Your task to perform on an android device: set an alarm Image 0: 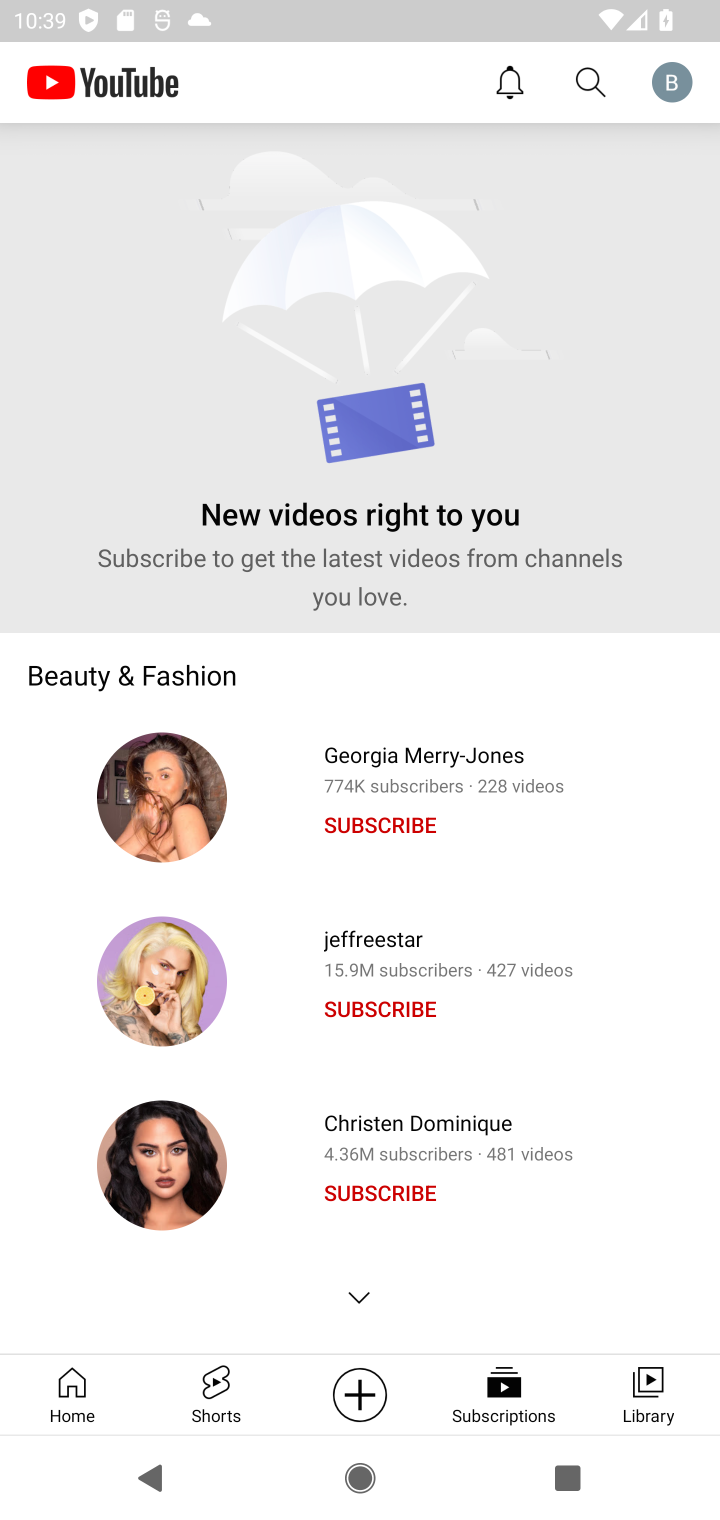
Step 0: press home button
Your task to perform on an android device: set an alarm Image 1: 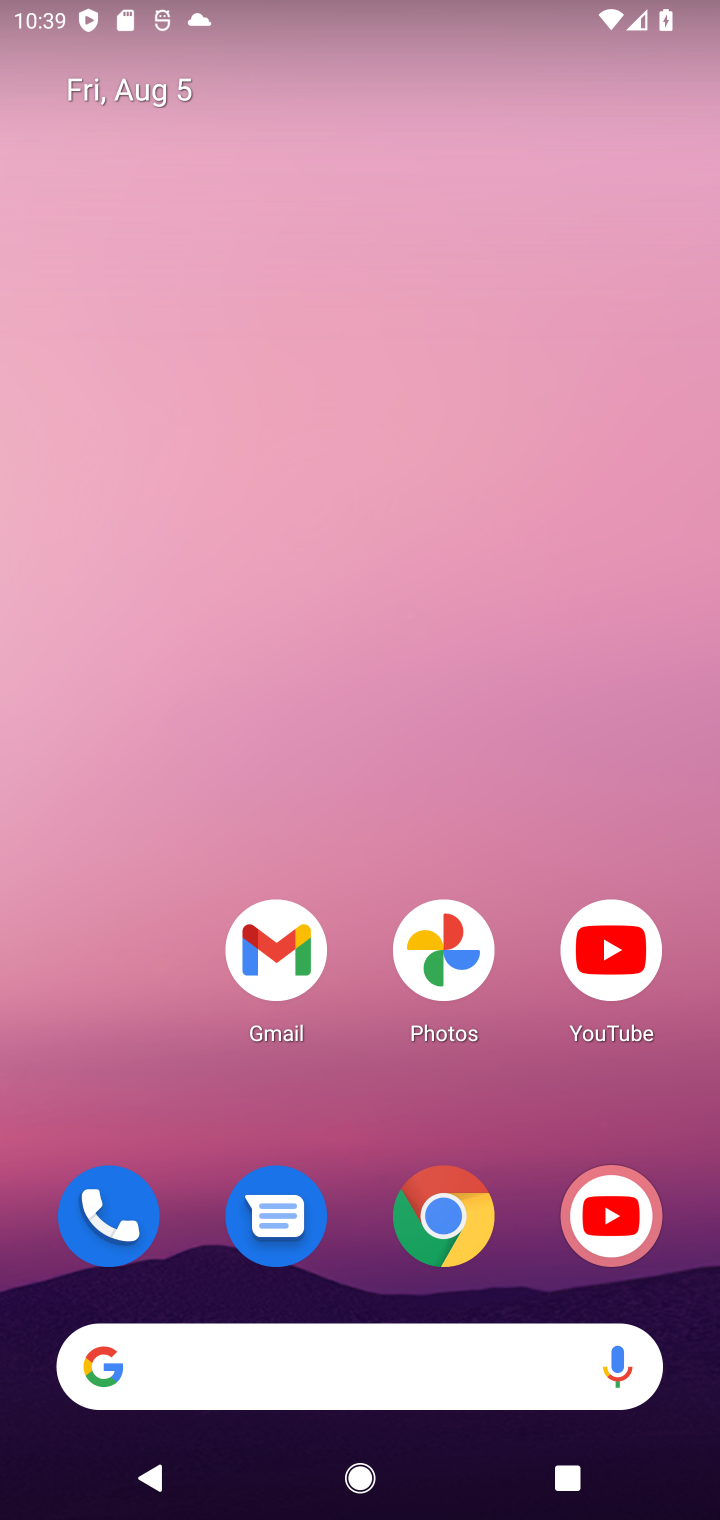
Step 1: drag from (438, 1362) to (619, 499)
Your task to perform on an android device: set an alarm Image 2: 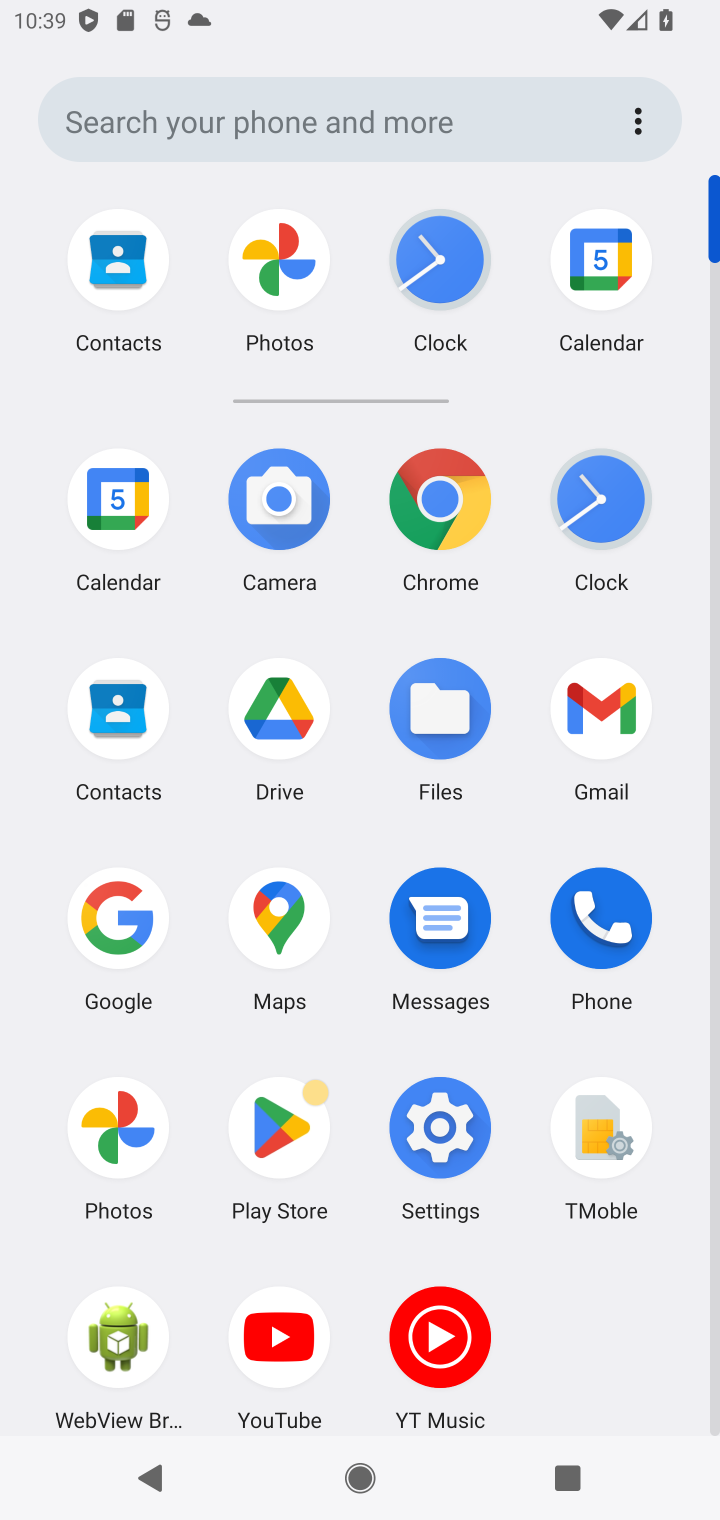
Step 2: click (619, 499)
Your task to perform on an android device: set an alarm Image 3: 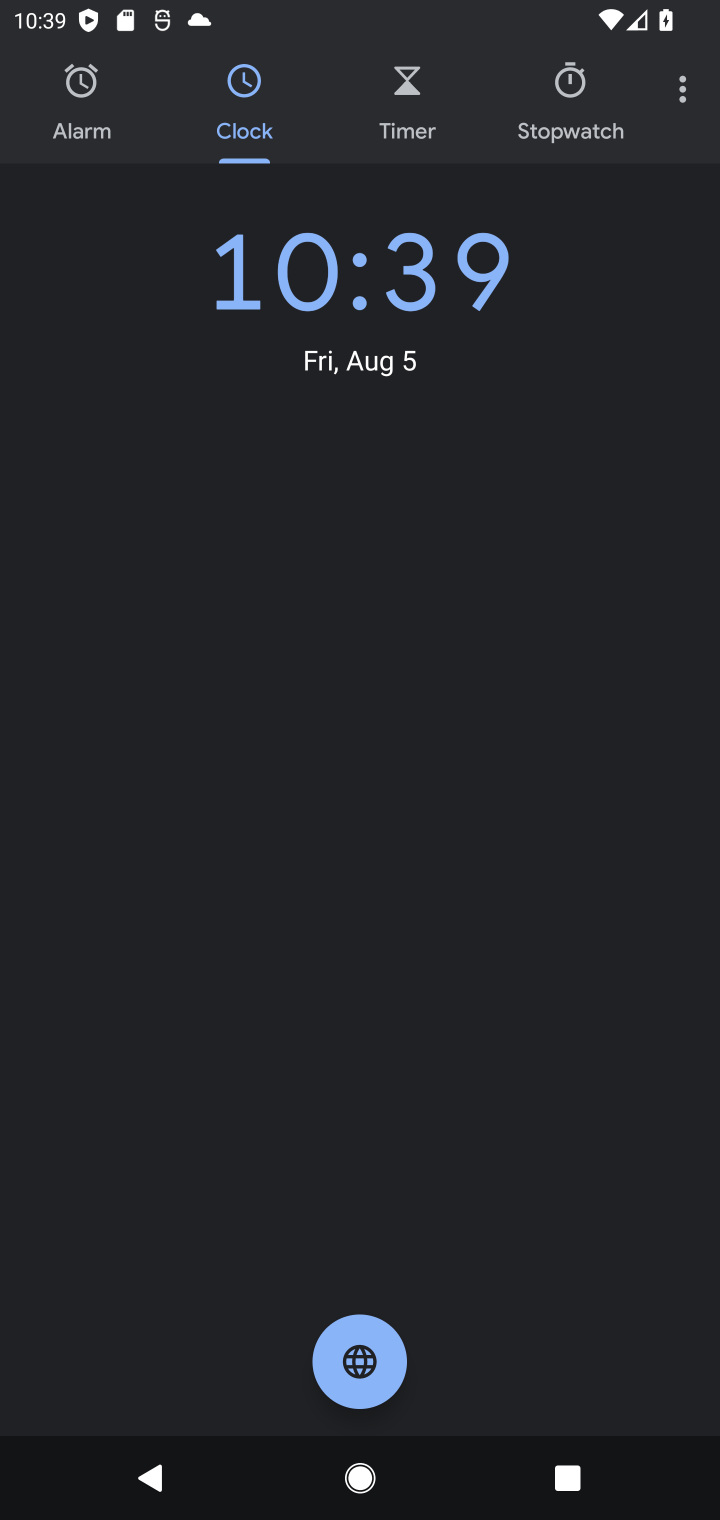
Step 3: click (82, 117)
Your task to perform on an android device: set an alarm Image 4: 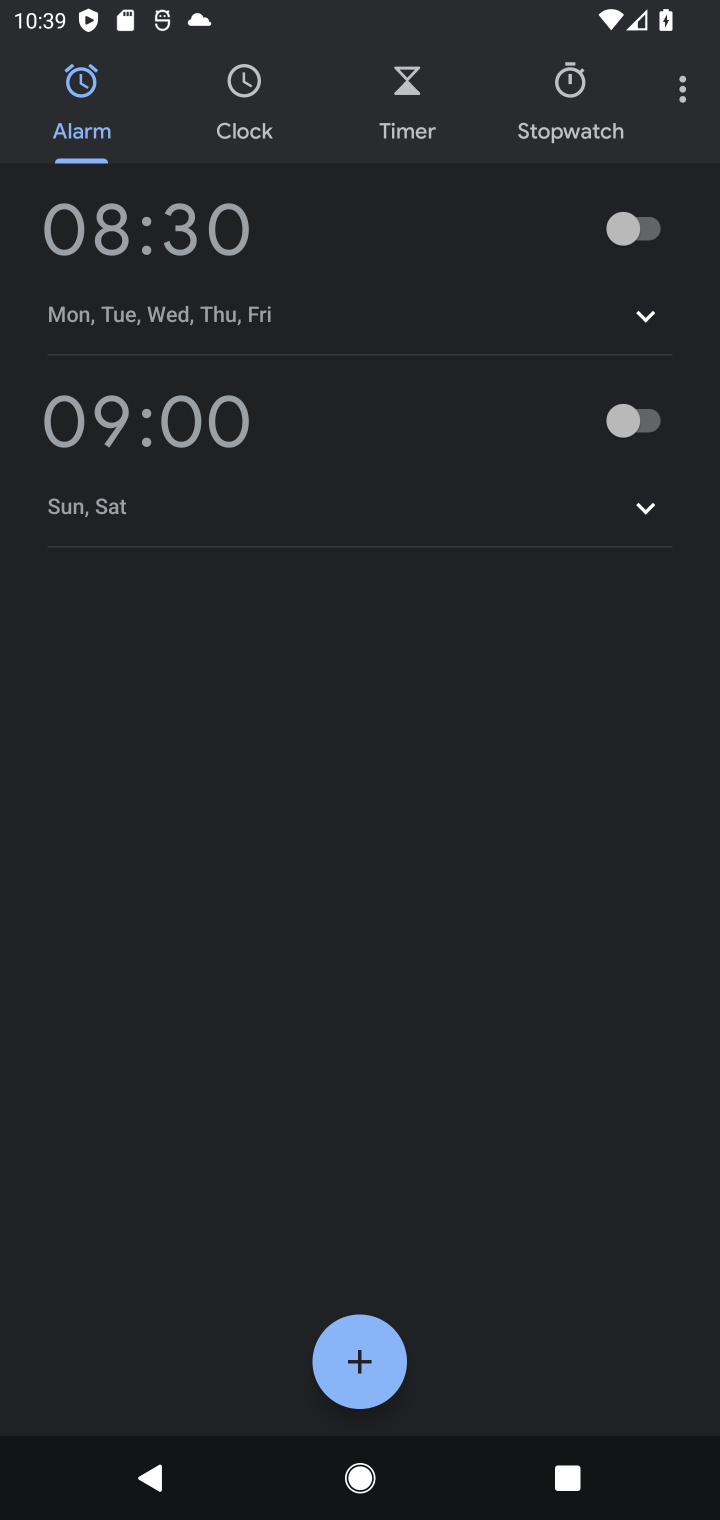
Step 4: click (644, 230)
Your task to perform on an android device: set an alarm Image 5: 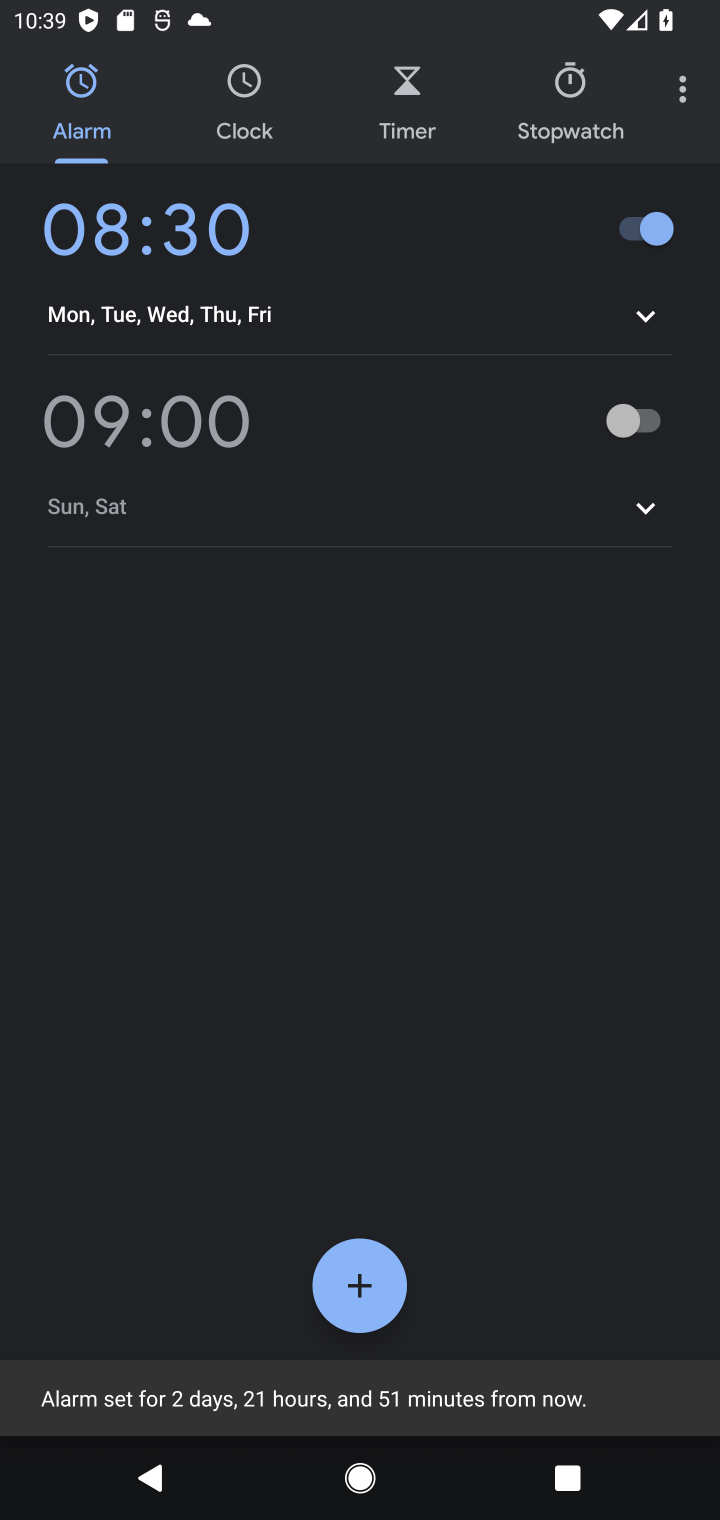
Step 5: task complete